Your task to perform on an android device: See recent photos Image 0: 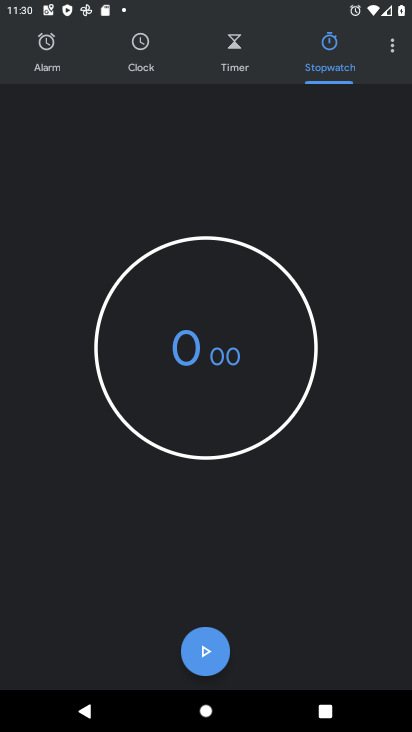
Step 0: press home button
Your task to perform on an android device: See recent photos Image 1: 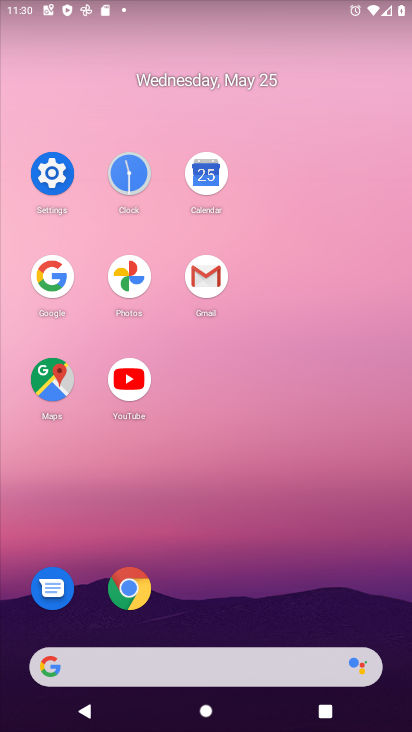
Step 1: click (118, 275)
Your task to perform on an android device: See recent photos Image 2: 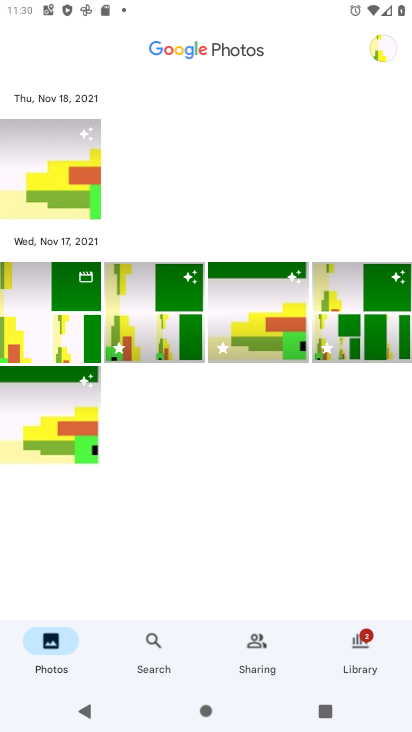
Step 2: task complete